Your task to perform on an android device: add a label to a message in the gmail app Image 0: 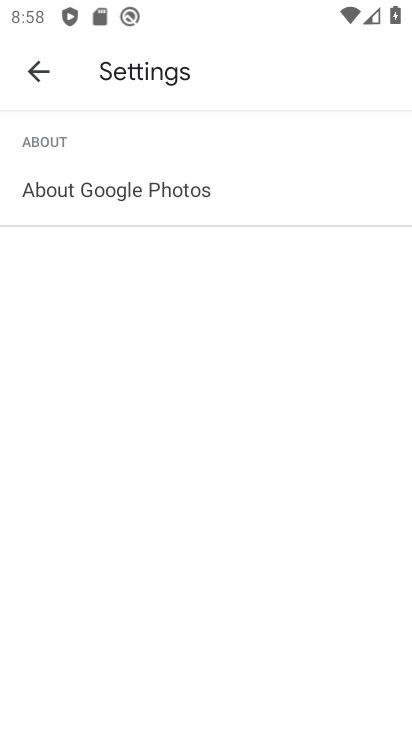
Step 0: press back button
Your task to perform on an android device: add a label to a message in the gmail app Image 1: 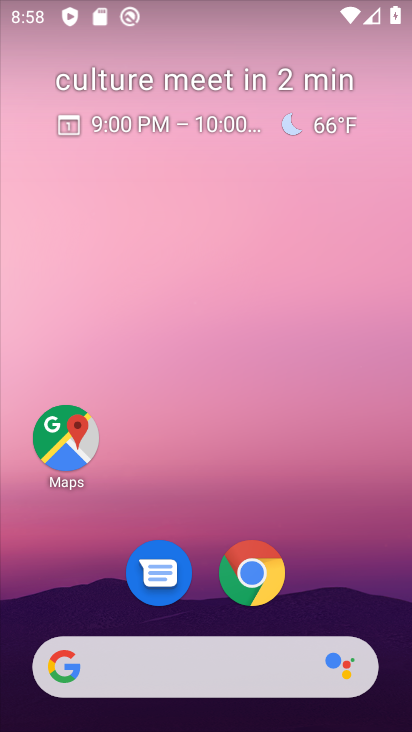
Step 1: drag from (229, 523) to (245, 57)
Your task to perform on an android device: add a label to a message in the gmail app Image 2: 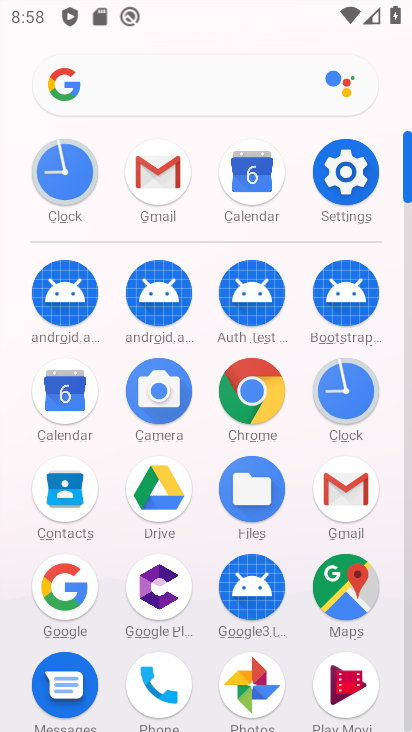
Step 2: click (149, 176)
Your task to perform on an android device: add a label to a message in the gmail app Image 3: 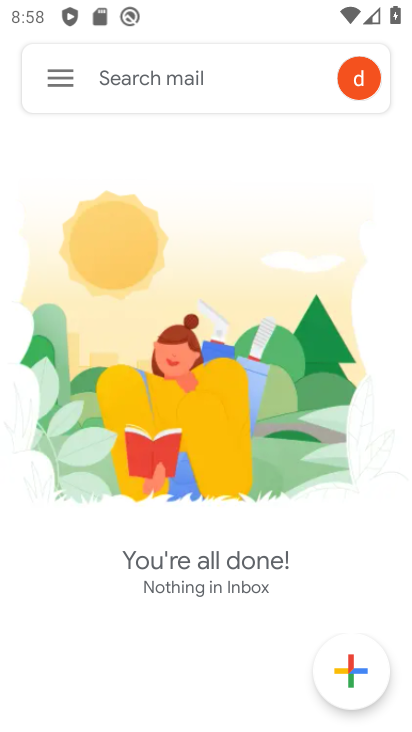
Step 3: click (68, 78)
Your task to perform on an android device: add a label to a message in the gmail app Image 4: 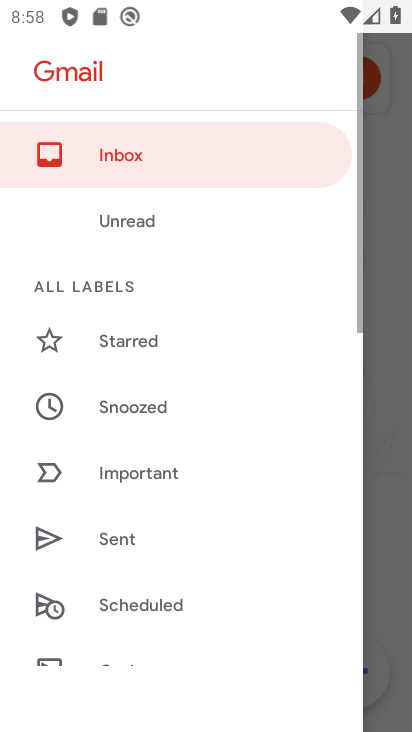
Step 4: drag from (150, 597) to (244, 219)
Your task to perform on an android device: add a label to a message in the gmail app Image 5: 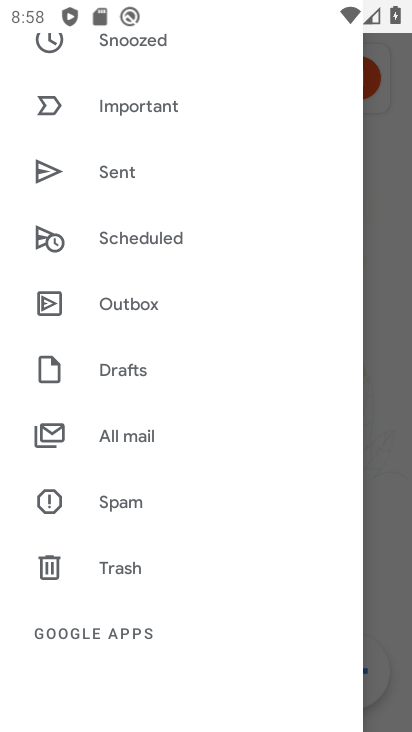
Step 5: click (169, 434)
Your task to perform on an android device: add a label to a message in the gmail app Image 6: 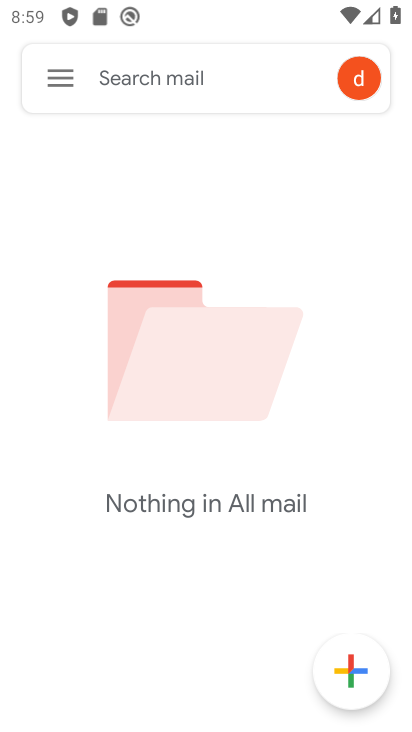
Step 6: task complete